Your task to perform on an android device: toggle notifications settings in the gmail app Image 0: 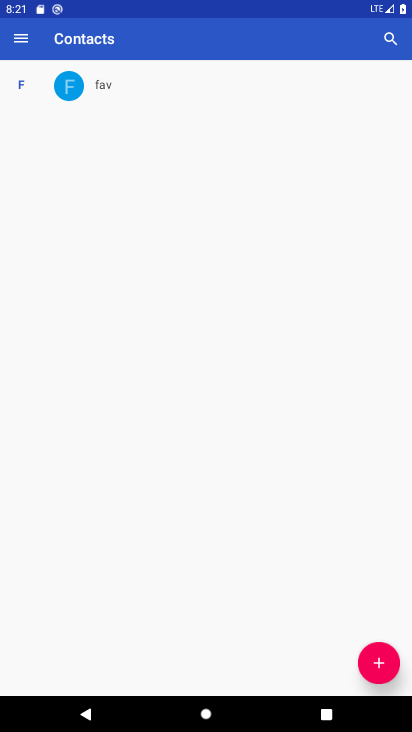
Step 0: press home button
Your task to perform on an android device: toggle notifications settings in the gmail app Image 1: 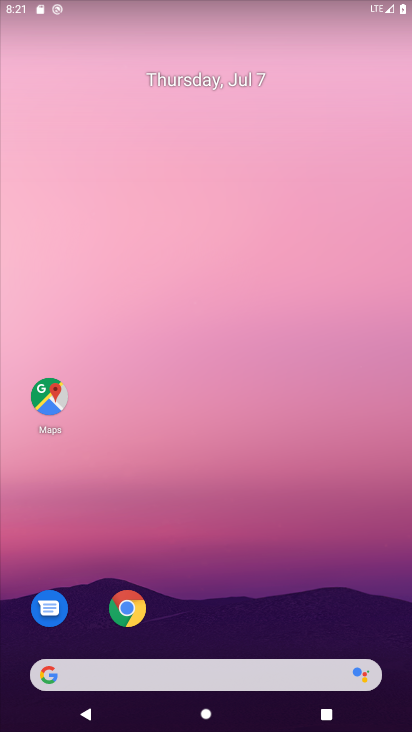
Step 1: drag from (346, 618) to (359, 125)
Your task to perform on an android device: toggle notifications settings in the gmail app Image 2: 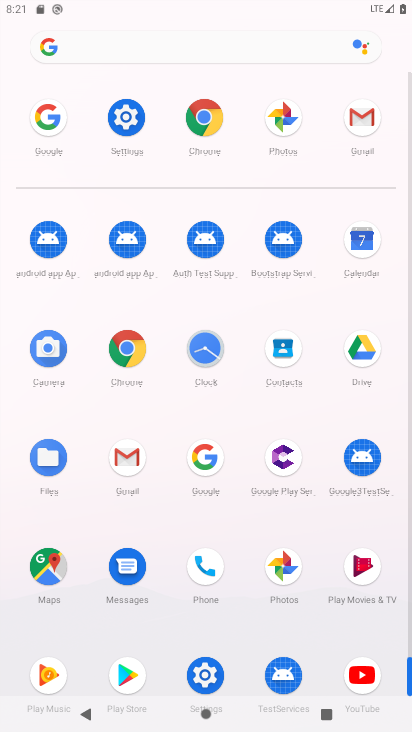
Step 2: click (131, 459)
Your task to perform on an android device: toggle notifications settings in the gmail app Image 3: 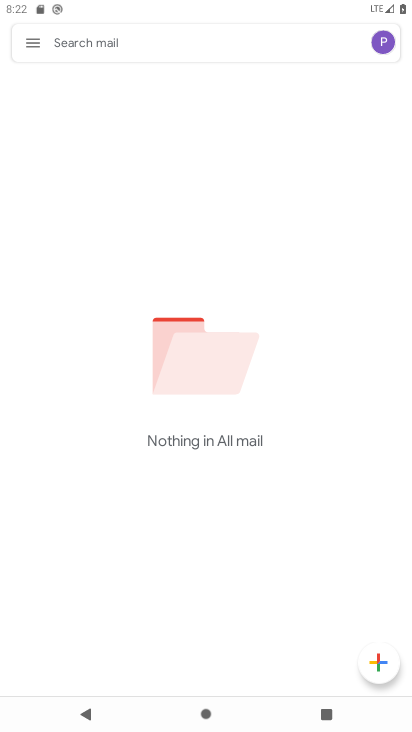
Step 3: click (36, 46)
Your task to perform on an android device: toggle notifications settings in the gmail app Image 4: 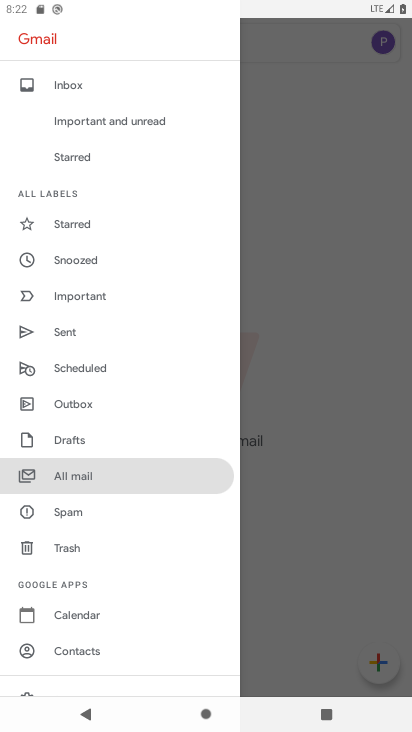
Step 4: drag from (150, 374) to (165, 269)
Your task to perform on an android device: toggle notifications settings in the gmail app Image 5: 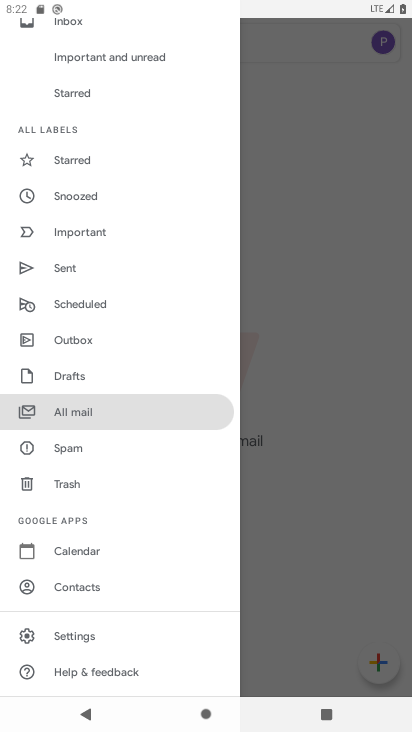
Step 5: click (130, 642)
Your task to perform on an android device: toggle notifications settings in the gmail app Image 6: 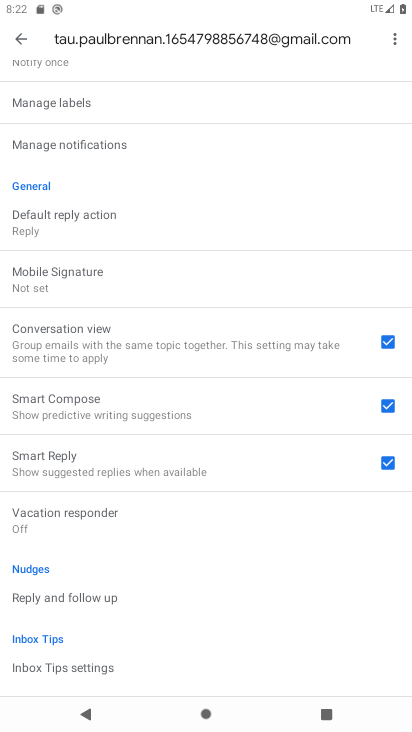
Step 6: drag from (254, 545) to (259, 392)
Your task to perform on an android device: toggle notifications settings in the gmail app Image 7: 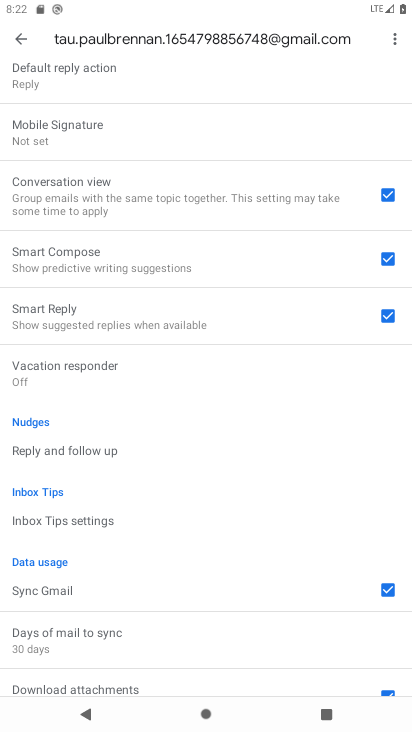
Step 7: drag from (245, 436) to (247, 247)
Your task to perform on an android device: toggle notifications settings in the gmail app Image 8: 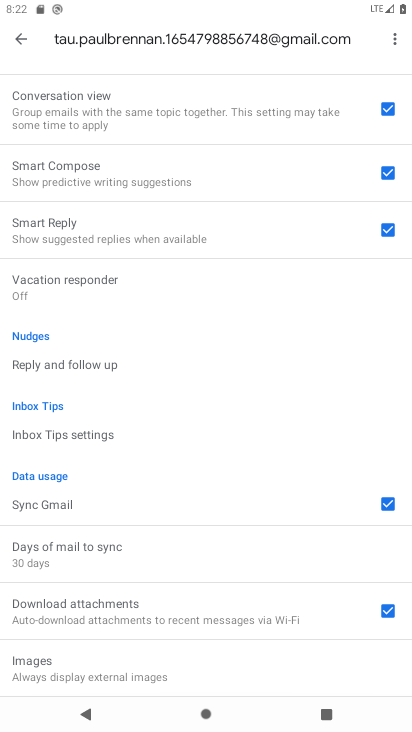
Step 8: drag from (248, 207) to (260, 289)
Your task to perform on an android device: toggle notifications settings in the gmail app Image 9: 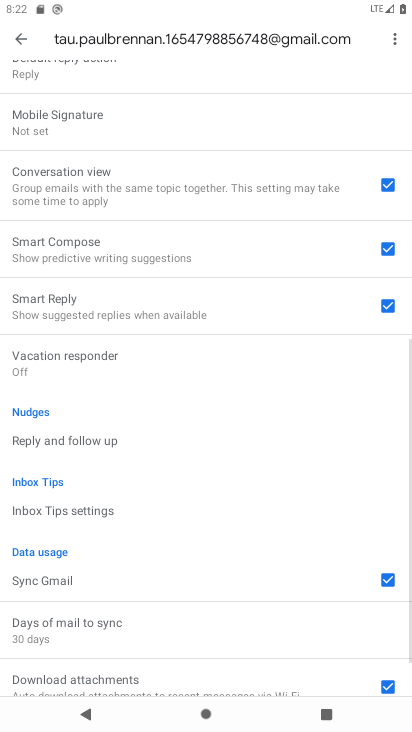
Step 9: drag from (260, 225) to (260, 340)
Your task to perform on an android device: toggle notifications settings in the gmail app Image 10: 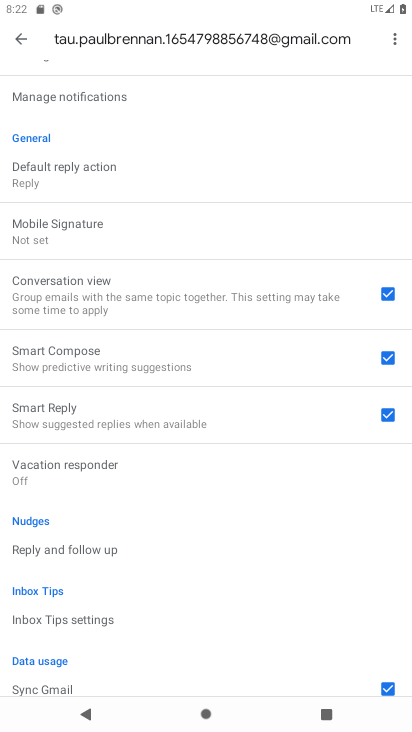
Step 10: drag from (254, 199) to (257, 364)
Your task to perform on an android device: toggle notifications settings in the gmail app Image 11: 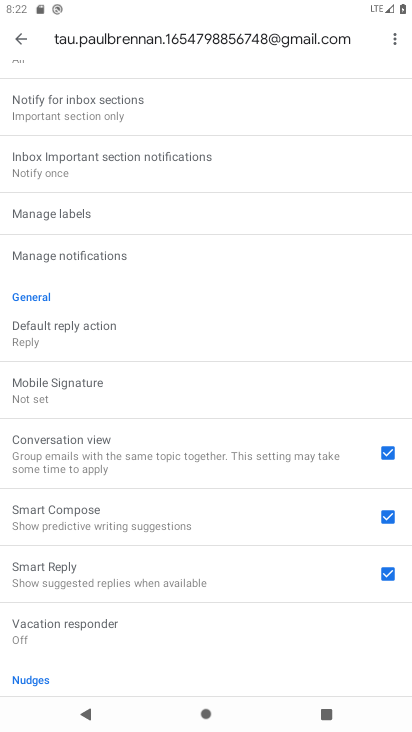
Step 11: drag from (254, 221) to (257, 367)
Your task to perform on an android device: toggle notifications settings in the gmail app Image 12: 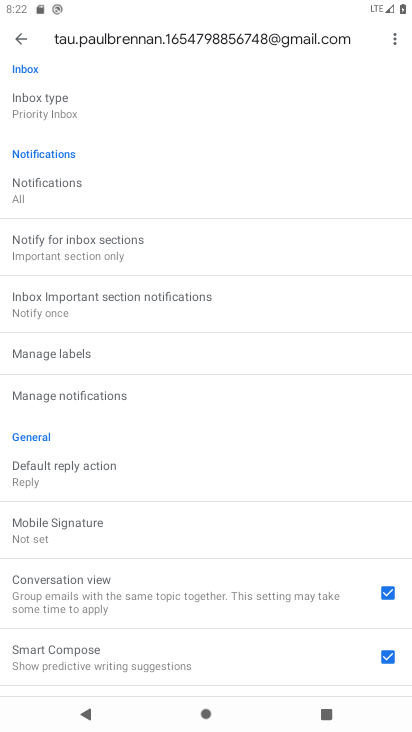
Step 12: drag from (257, 252) to (249, 422)
Your task to perform on an android device: toggle notifications settings in the gmail app Image 13: 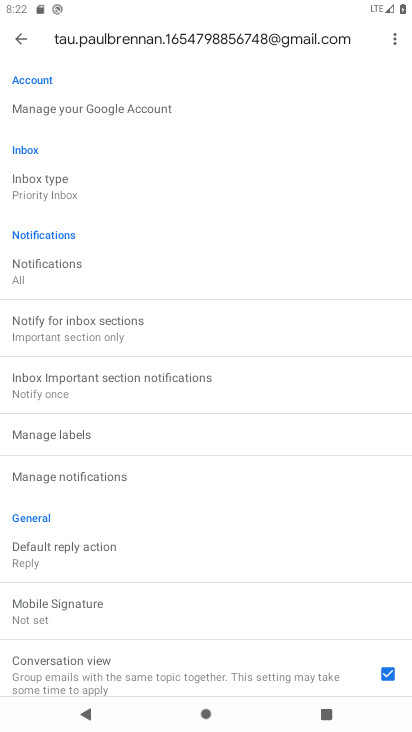
Step 13: click (131, 479)
Your task to perform on an android device: toggle notifications settings in the gmail app Image 14: 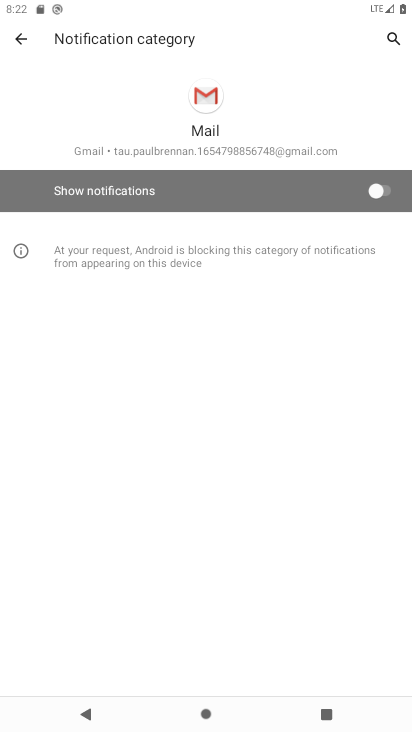
Step 14: click (373, 192)
Your task to perform on an android device: toggle notifications settings in the gmail app Image 15: 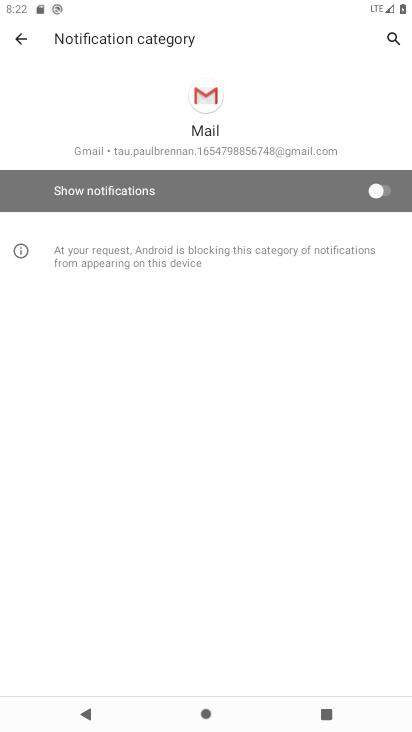
Step 15: click (378, 189)
Your task to perform on an android device: toggle notifications settings in the gmail app Image 16: 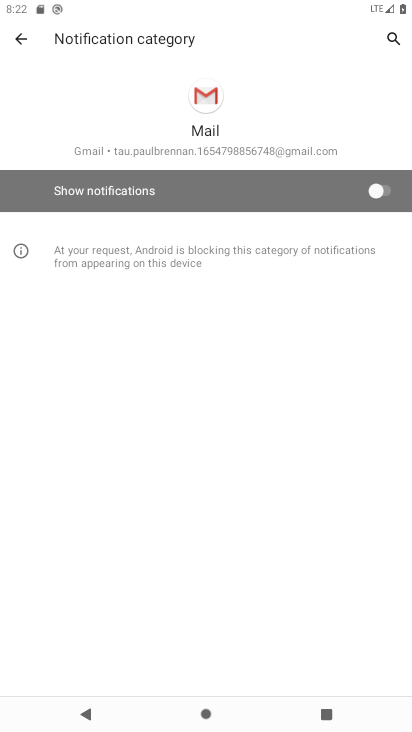
Step 16: task complete